Your task to perform on an android device: move a message to another label in the gmail app Image 0: 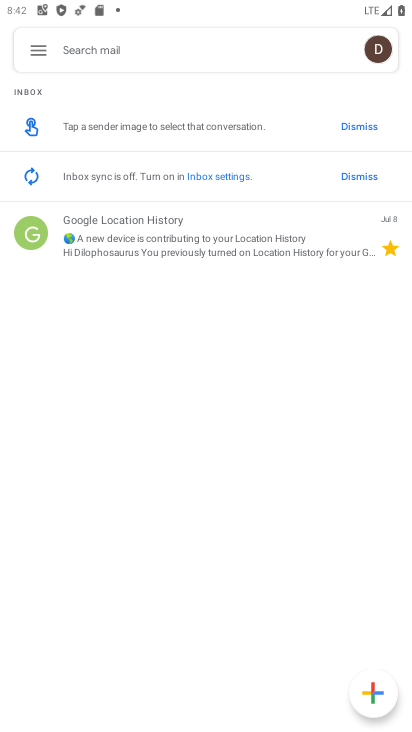
Step 0: press home button
Your task to perform on an android device: move a message to another label in the gmail app Image 1: 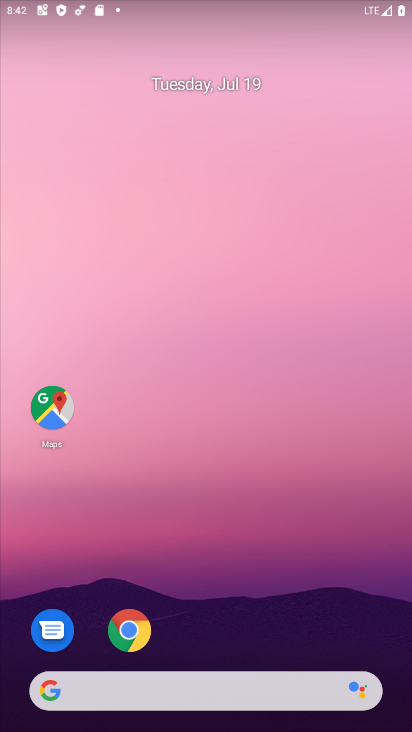
Step 1: drag from (222, 648) to (276, 176)
Your task to perform on an android device: move a message to another label in the gmail app Image 2: 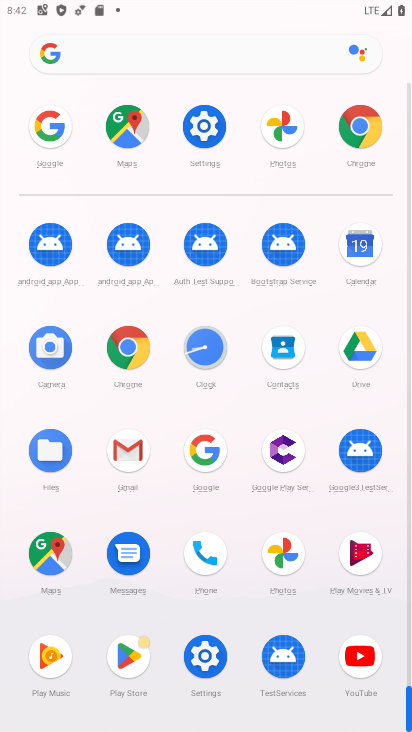
Step 2: click (132, 470)
Your task to perform on an android device: move a message to another label in the gmail app Image 3: 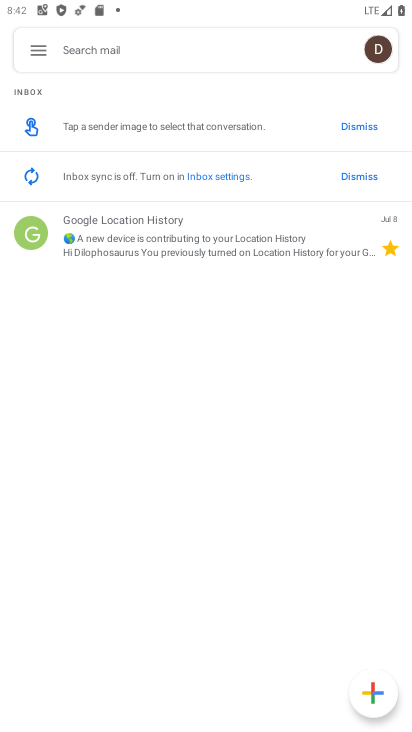
Step 3: click (149, 260)
Your task to perform on an android device: move a message to another label in the gmail app Image 4: 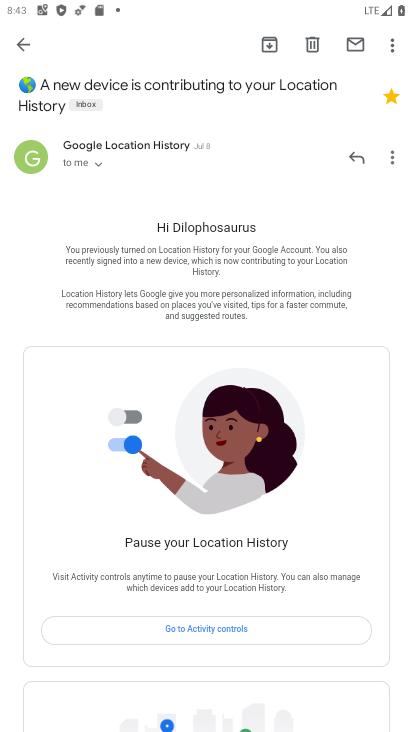
Step 4: click (395, 45)
Your task to perform on an android device: move a message to another label in the gmail app Image 5: 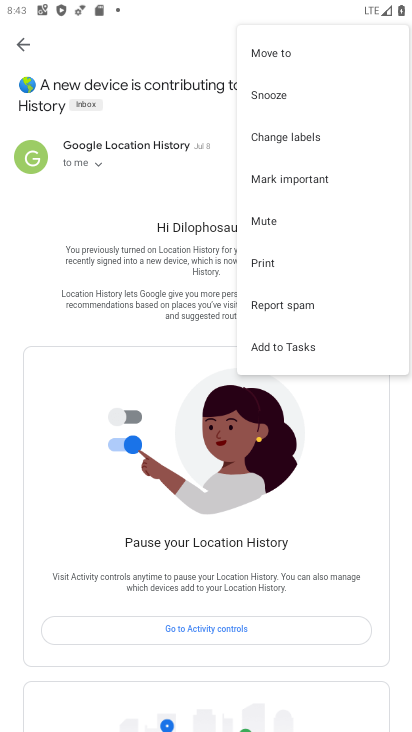
Step 5: click (308, 141)
Your task to perform on an android device: move a message to another label in the gmail app Image 6: 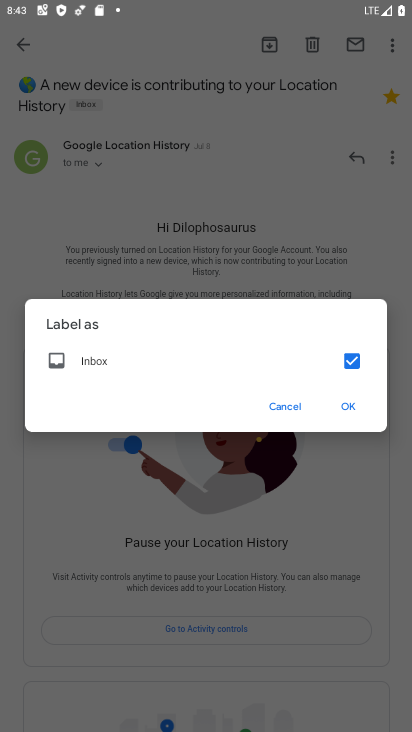
Step 6: click (349, 412)
Your task to perform on an android device: move a message to another label in the gmail app Image 7: 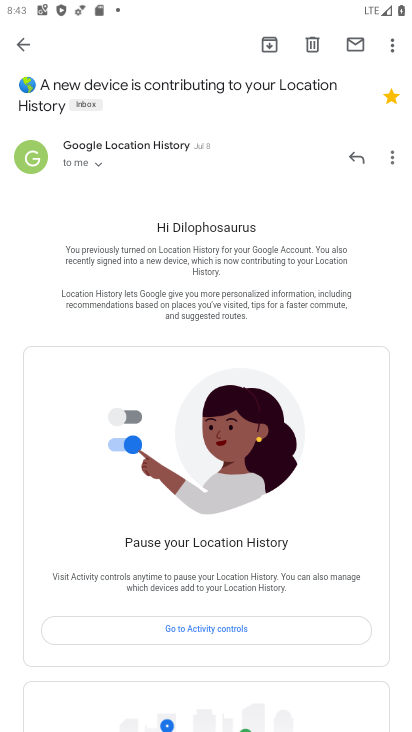
Step 7: task complete